Your task to perform on an android device: Open the phone app and click the voicemail tab. Image 0: 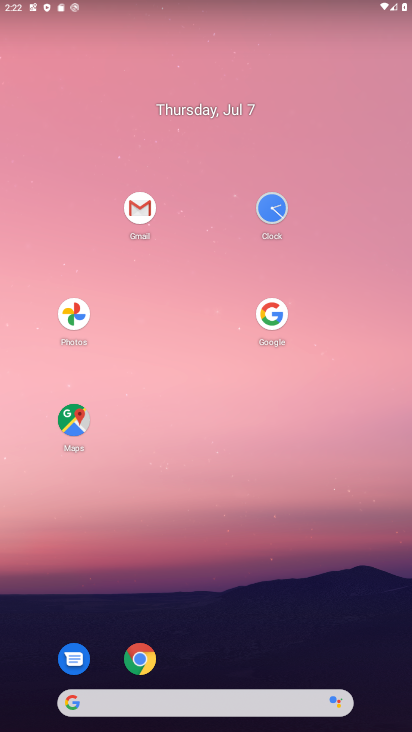
Step 0: drag from (319, 673) to (370, 117)
Your task to perform on an android device: Open the phone app and click the voicemail tab. Image 1: 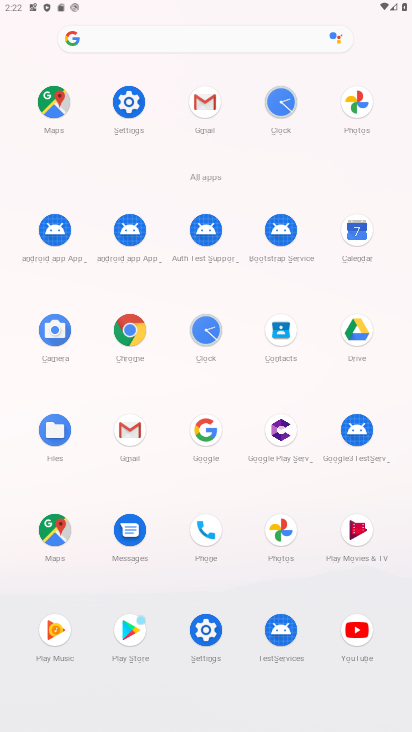
Step 1: drag from (321, 538) to (338, 212)
Your task to perform on an android device: Open the phone app and click the voicemail tab. Image 2: 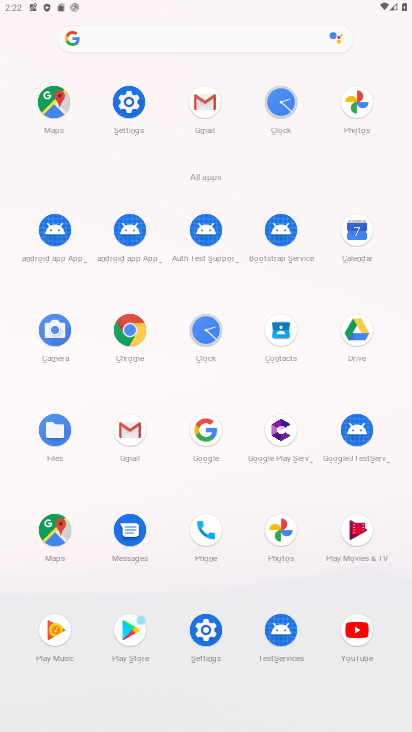
Step 2: click (198, 538)
Your task to perform on an android device: Open the phone app and click the voicemail tab. Image 3: 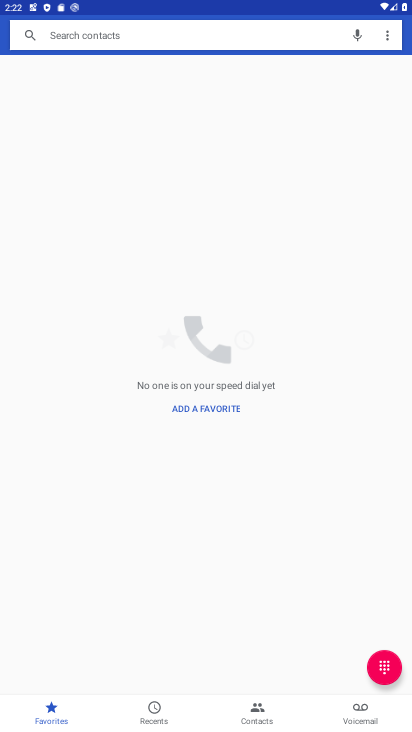
Step 3: click (365, 711)
Your task to perform on an android device: Open the phone app and click the voicemail tab. Image 4: 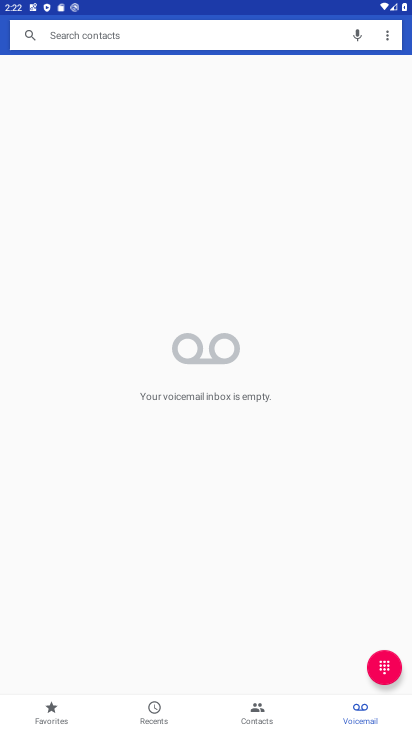
Step 4: task complete